Your task to perform on an android device: check storage Image 0: 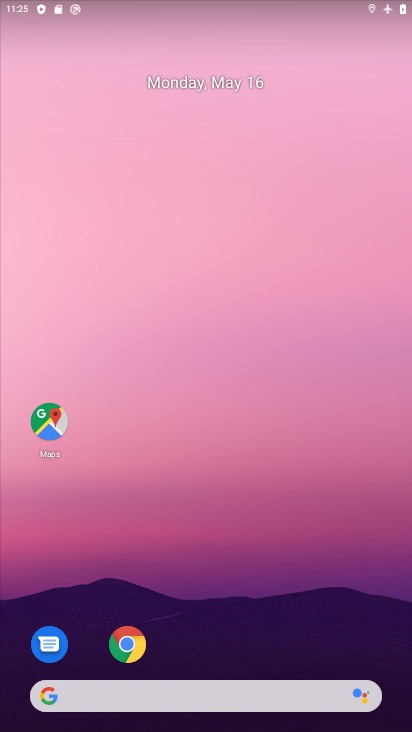
Step 0: drag from (241, 618) to (242, 347)
Your task to perform on an android device: check storage Image 1: 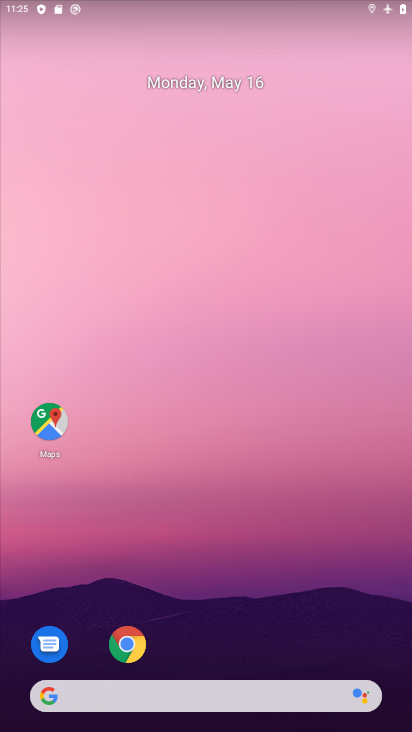
Step 1: drag from (250, 645) to (265, 333)
Your task to perform on an android device: check storage Image 2: 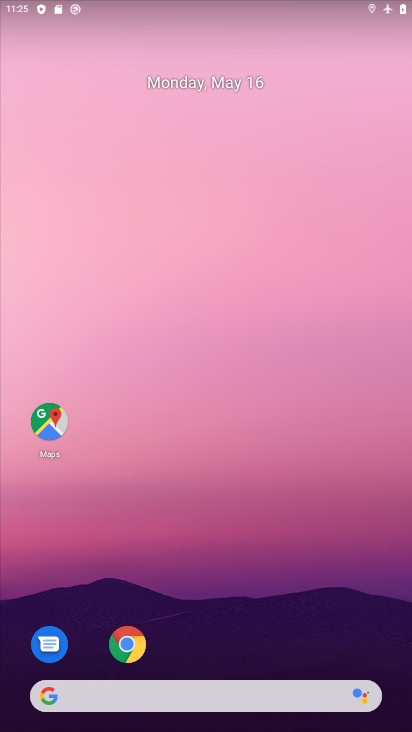
Step 2: drag from (270, 650) to (267, 272)
Your task to perform on an android device: check storage Image 3: 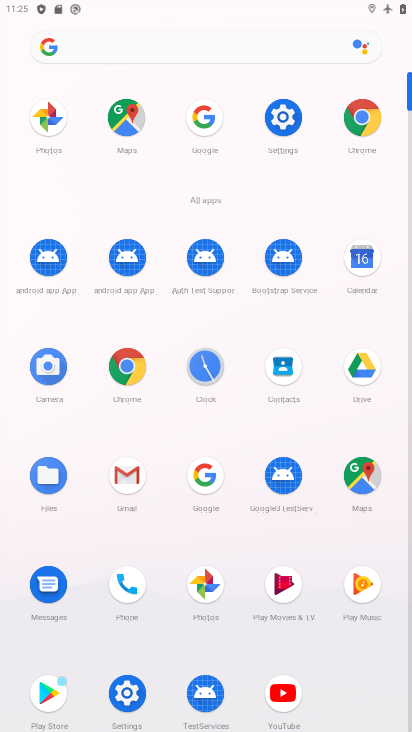
Step 3: click (284, 116)
Your task to perform on an android device: check storage Image 4: 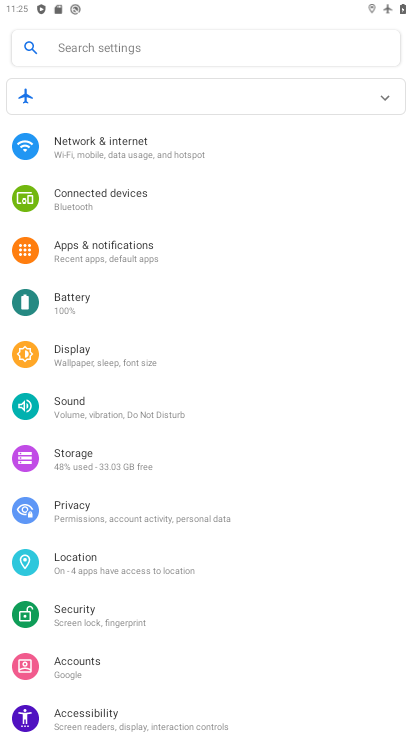
Step 4: click (104, 460)
Your task to perform on an android device: check storage Image 5: 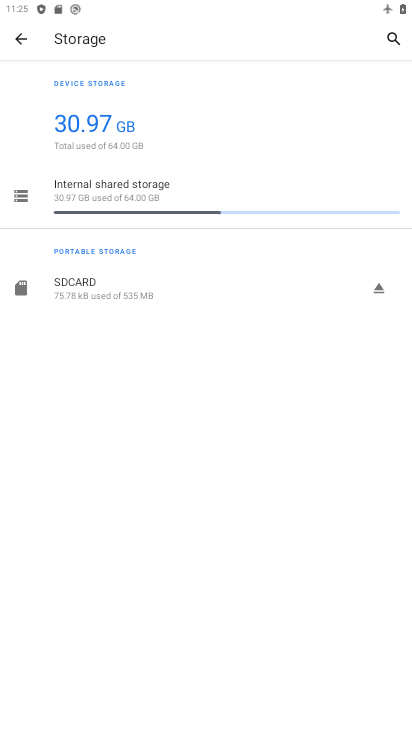
Step 5: task complete